Your task to perform on an android device: change the clock display to digital Image 0: 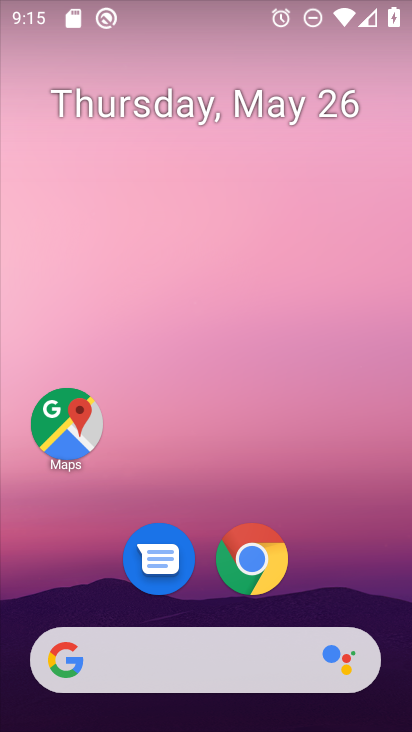
Step 0: drag from (328, 562) to (322, 93)
Your task to perform on an android device: change the clock display to digital Image 1: 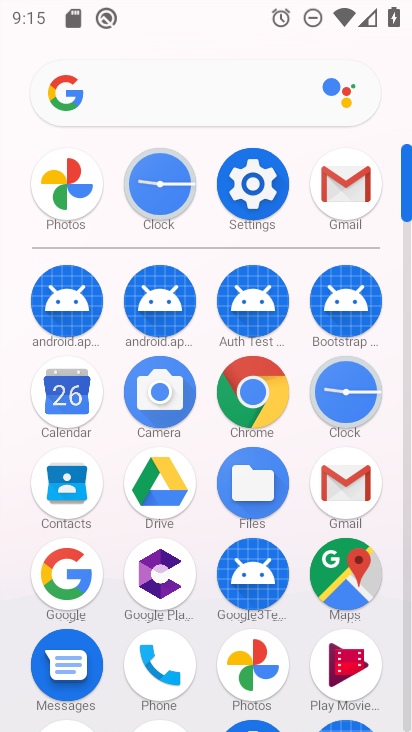
Step 1: click (347, 382)
Your task to perform on an android device: change the clock display to digital Image 2: 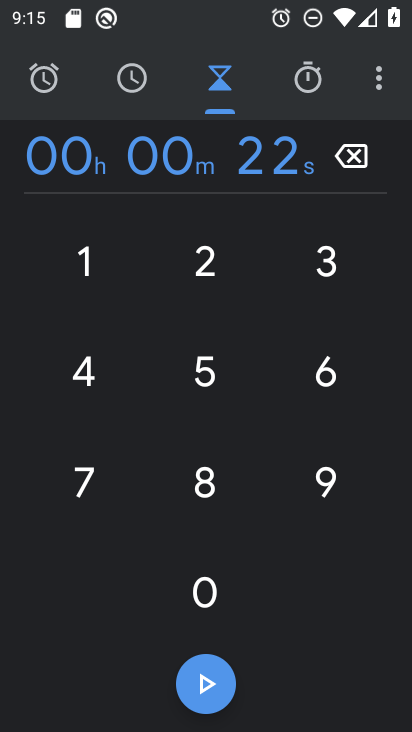
Step 2: click (377, 73)
Your task to perform on an android device: change the clock display to digital Image 3: 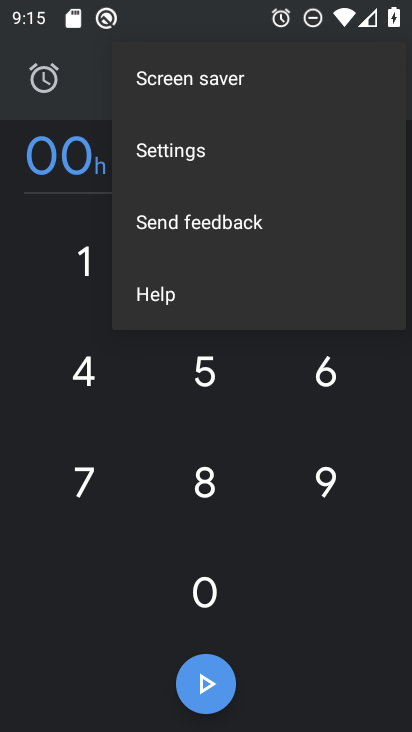
Step 3: click (278, 150)
Your task to perform on an android device: change the clock display to digital Image 4: 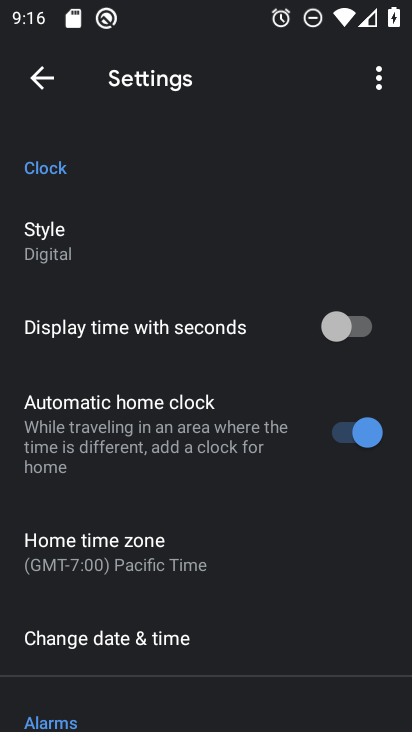
Step 4: task complete